Your task to perform on an android device: check battery use Image 0: 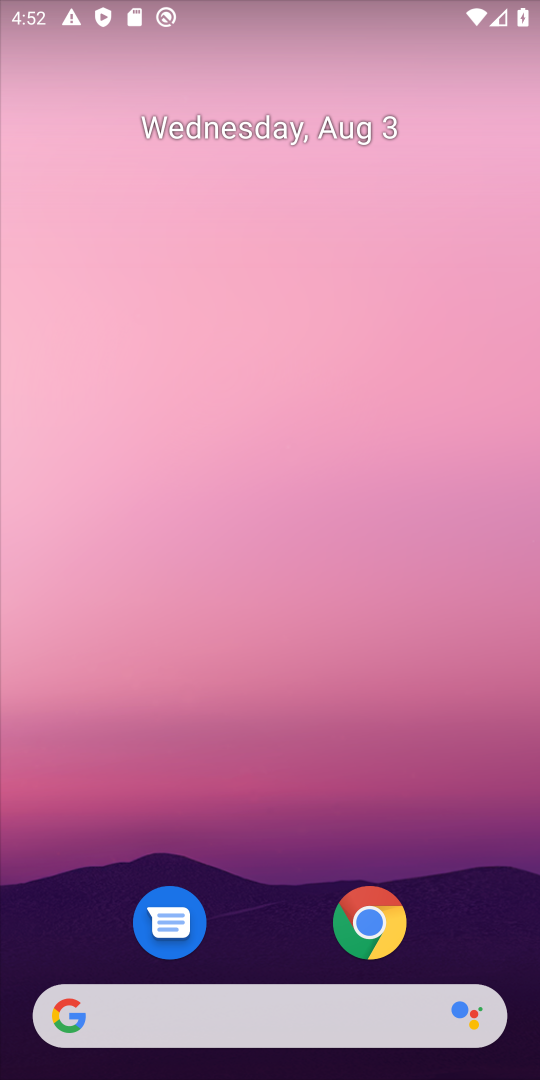
Step 0: drag from (510, 931) to (432, 217)
Your task to perform on an android device: check battery use Image 1: 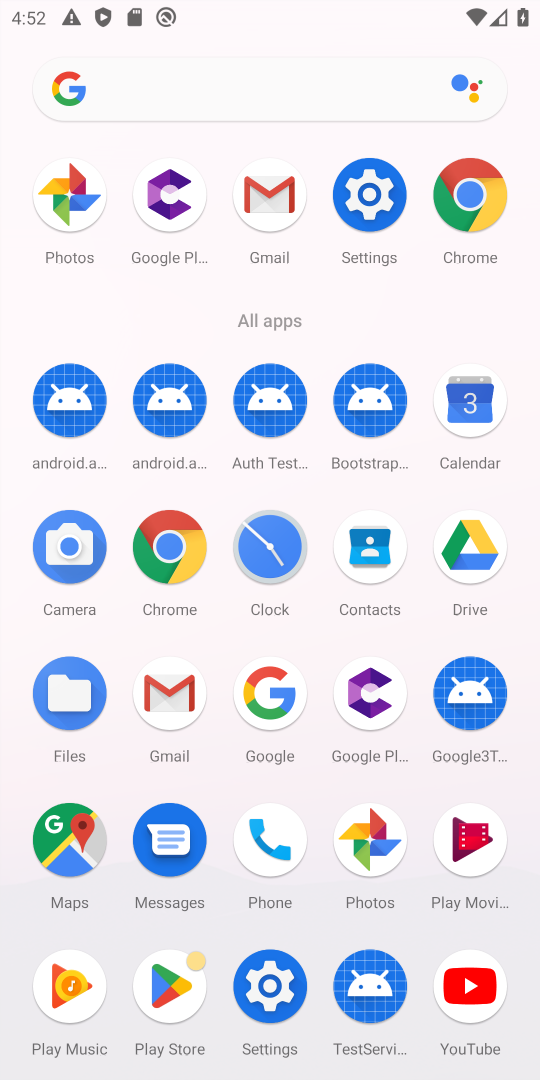
Step 1: click (378, 215)
Your task to perform on an android device: check battery use Image 2: 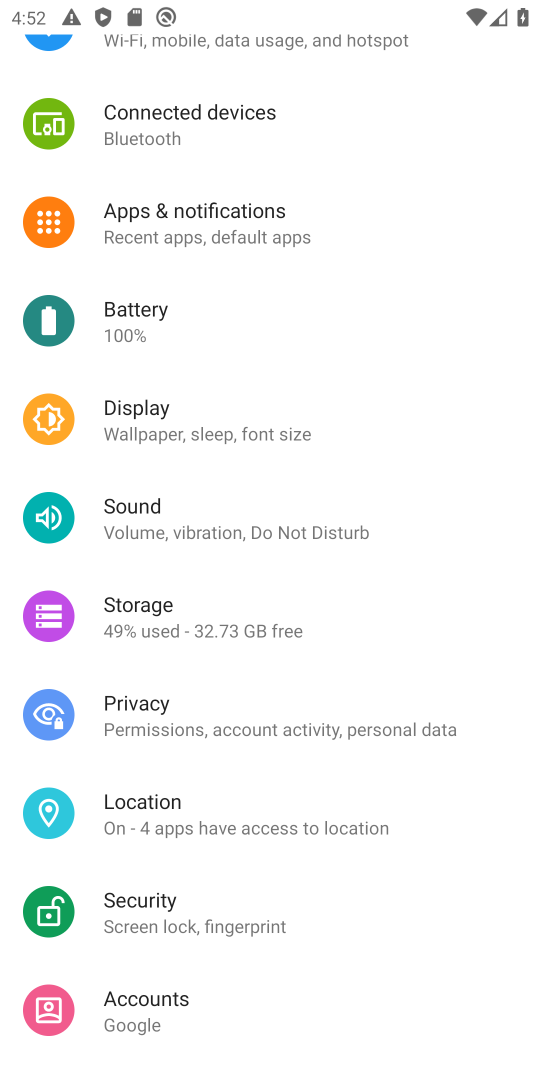
Step 2: drag from (323, 955) to (389, 1058)
Your task to perform on an android device: check battery use Image 3: 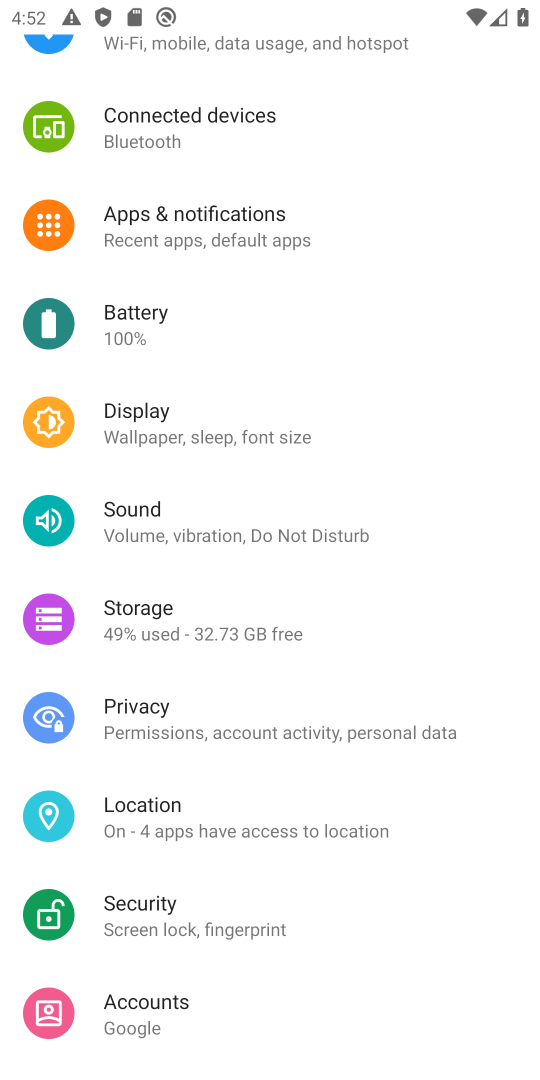
Step 3: click (236, 323)
Your task to perform on an android device: check battery use Image 4: 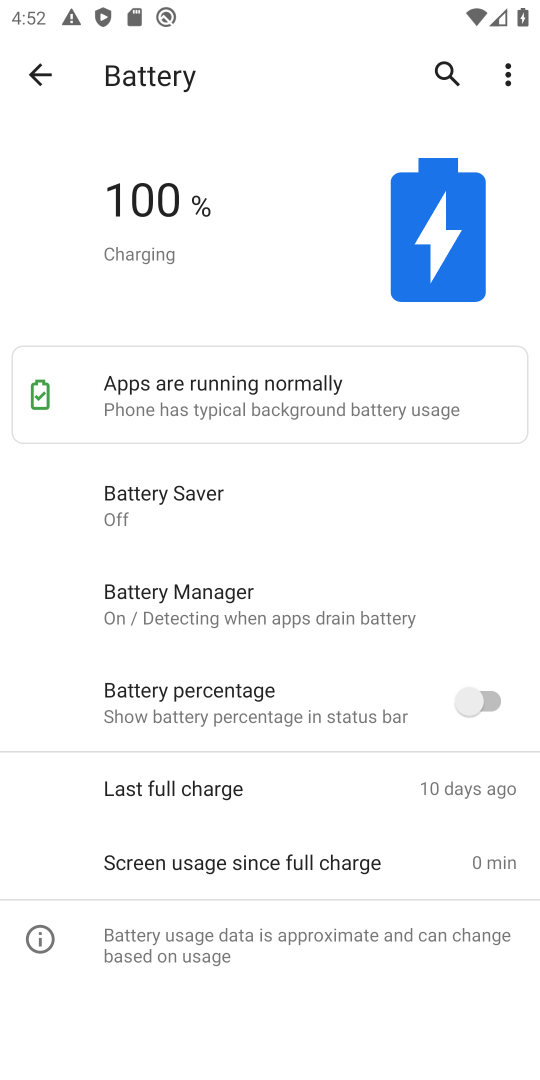
Step 4: click (512, 78)
Your task to perform on an android device: check battery use Image 5: 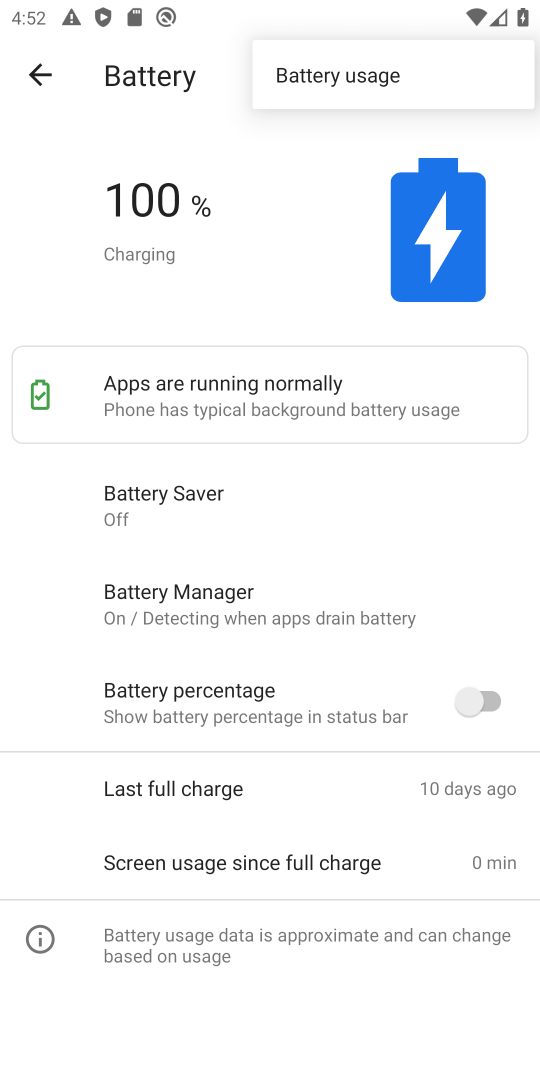
Step 5: click (292, 80)
Your task to perform on an android device: check battery use Image 6: 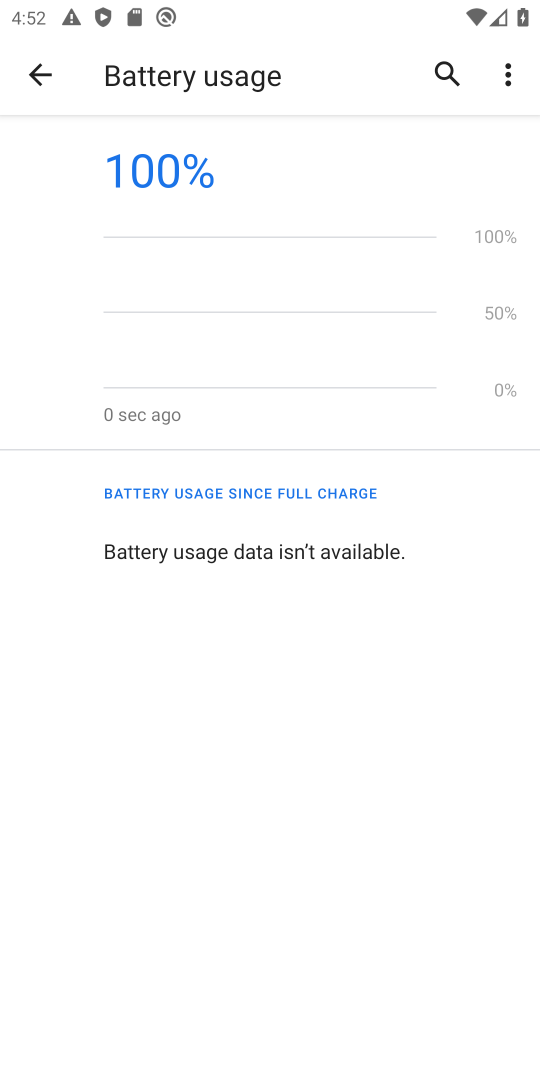
Step 6: task complete